Your task to perform on an android device: delete browsing data in the chrome app Image 0: 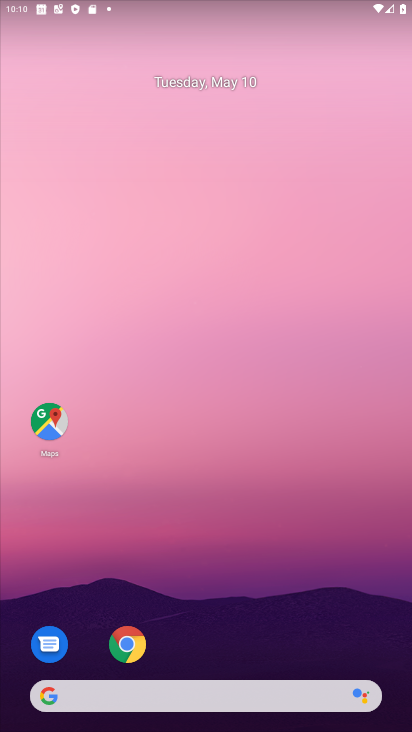
Step 0: drag from (287, 576) to (309, 212)
Your task to perform on an android device: delete browsing data in the chrome app Image 1: 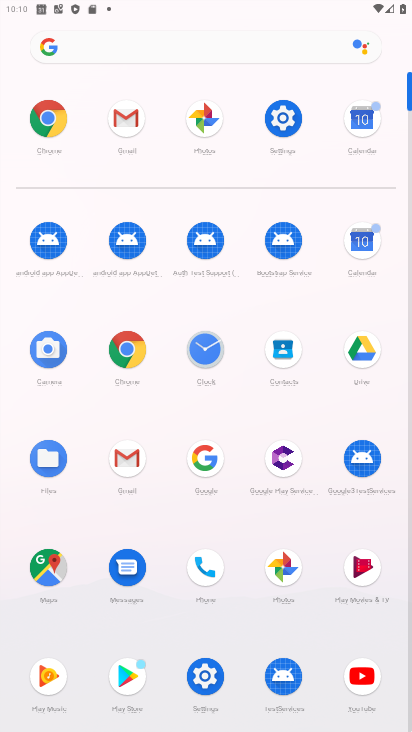
Step 1: click (125, 347)
Your task to perform on an android device: delete browsing data in the chrome app Image 2: 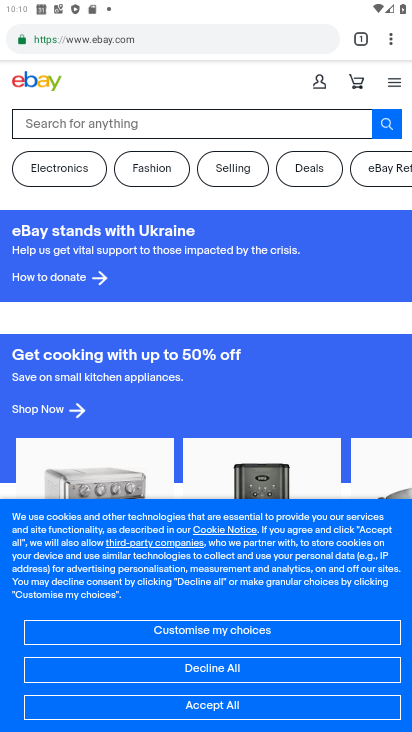
Step 2: click (386, 40)
Your task to perform on an android device: delete browsing data in the chrome app Image 3: 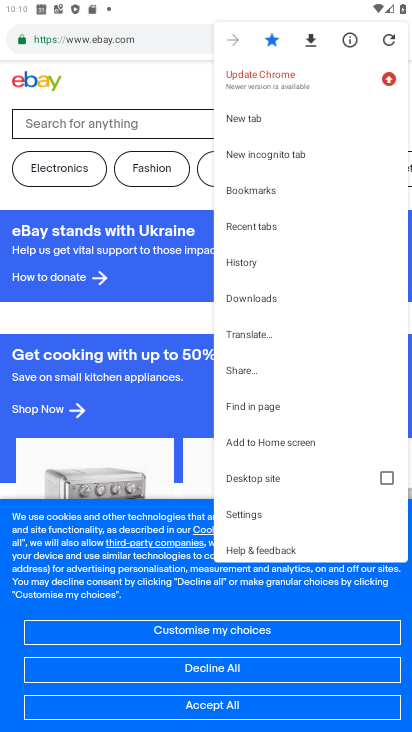
Step 3: drag from (280, 406) to (274, 315)
Your task to perform on an android device: delete browsing data in the chrome app Image 4: 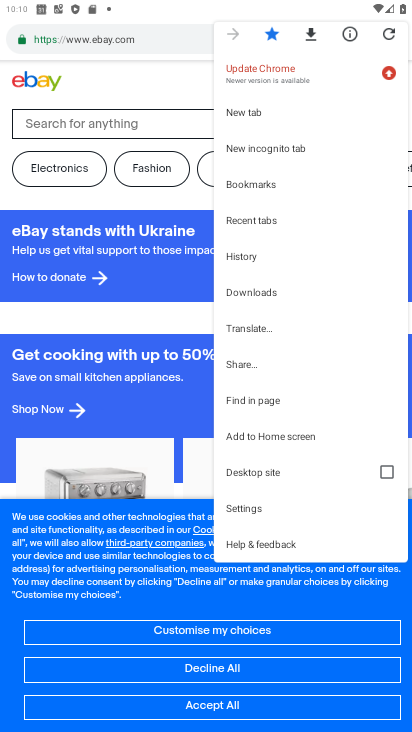
Step 4: click (276, 506)
Your task to perform on an android device: delete browsing data in the chrome app Image 5: 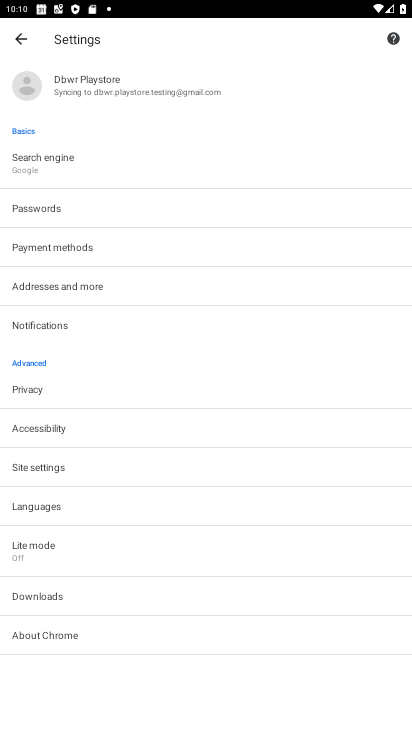
Step 5: drag from (325, 456) to (335, 109)
Your task to perform on an android device: delete browsing data in the chrome app Image 6: 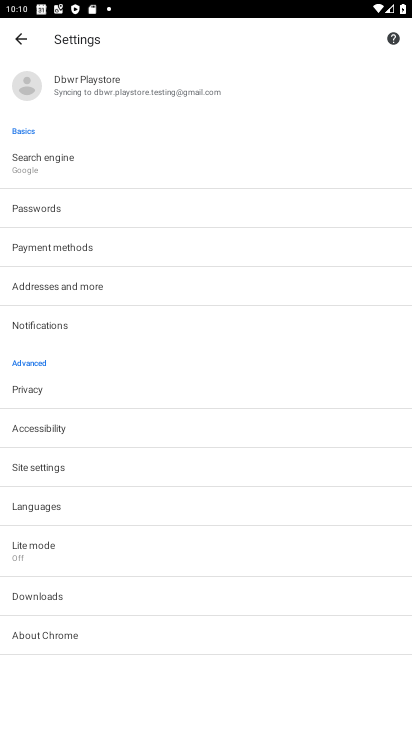
Step 6: click (20, 41)
Your task to perform on an android device: delete browsing data in the chrome app Image 7: 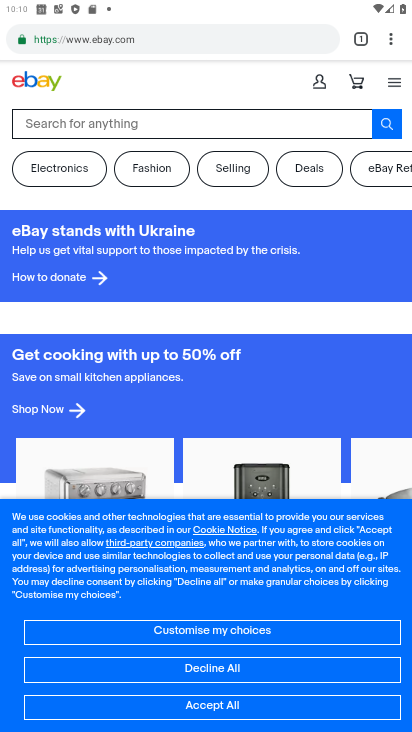
Step 7: click (391, 47)
Your task to perform on an android device: delete browsing data in the chrome app Image 8: 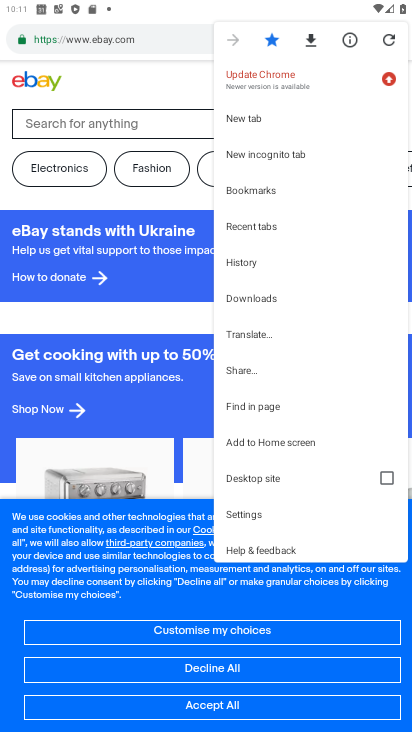
Step 8: click (269, 258)
Your task to perform on an android device: delete browsing data in the chrome app Image 9: 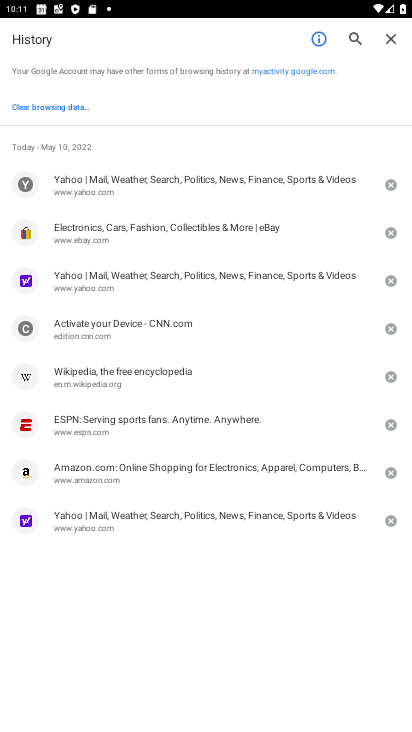
Step 9: click (77, 106)
Your task to perform on an android device: delete browsing data in the chrome app Image 10: 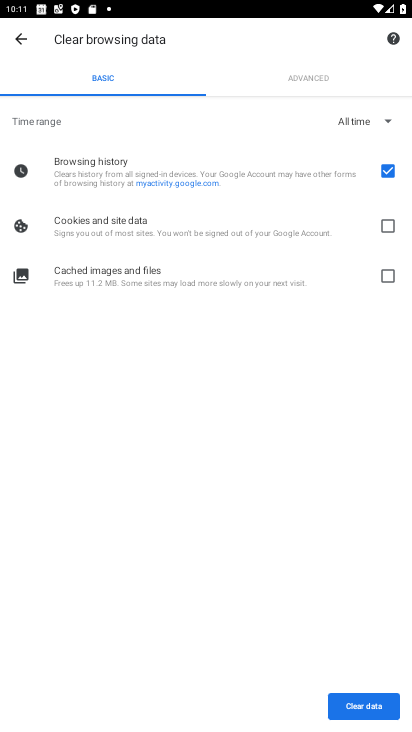
Step 10: click (386, 704)
Your task to perform on an android device: delete browsing data in the chrome app Image 11: 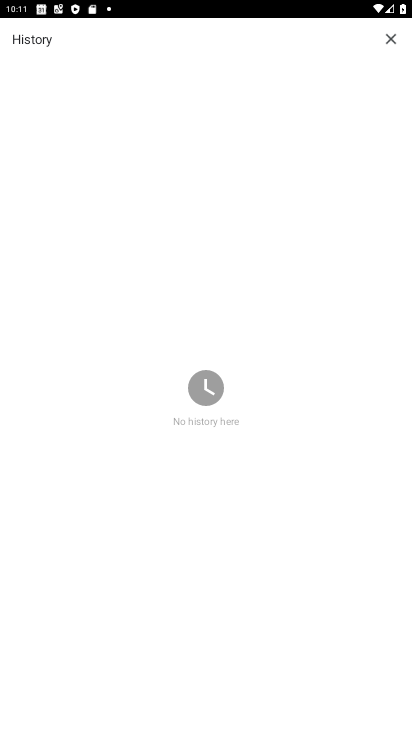
Step 11: task complete